Your task to perform on an android device: Add "jbl flip 4" to the cart on bestbuy.com Image 0: 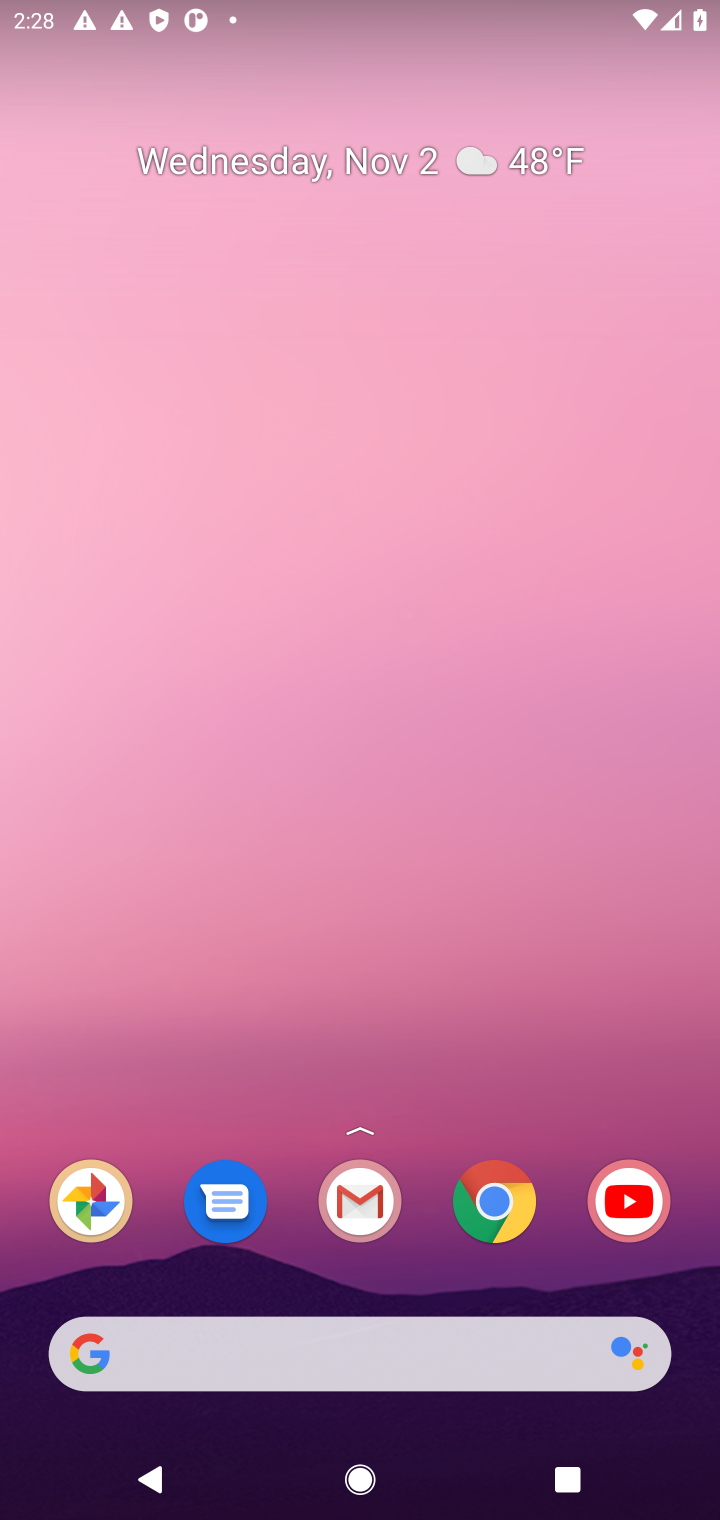
Step 0: click (512, 1214)
Your task to perform on an android device: Add "jbl flip 4" to the cart on bestbuy.com Image 1: 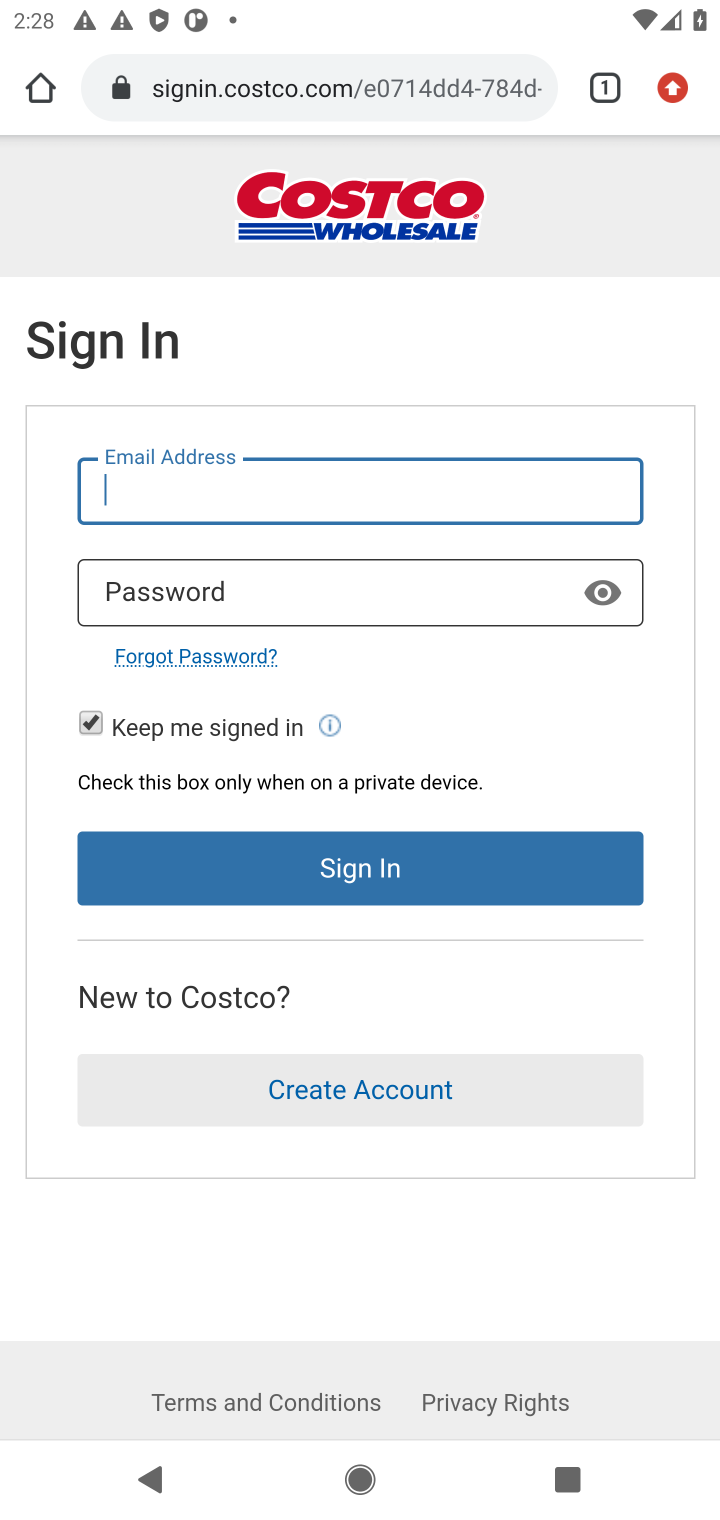
Step 1: click (378, 82)
Your task to perform on an android device: Add "jbl flip 4" to the cart on bestbuy.com Image 2: 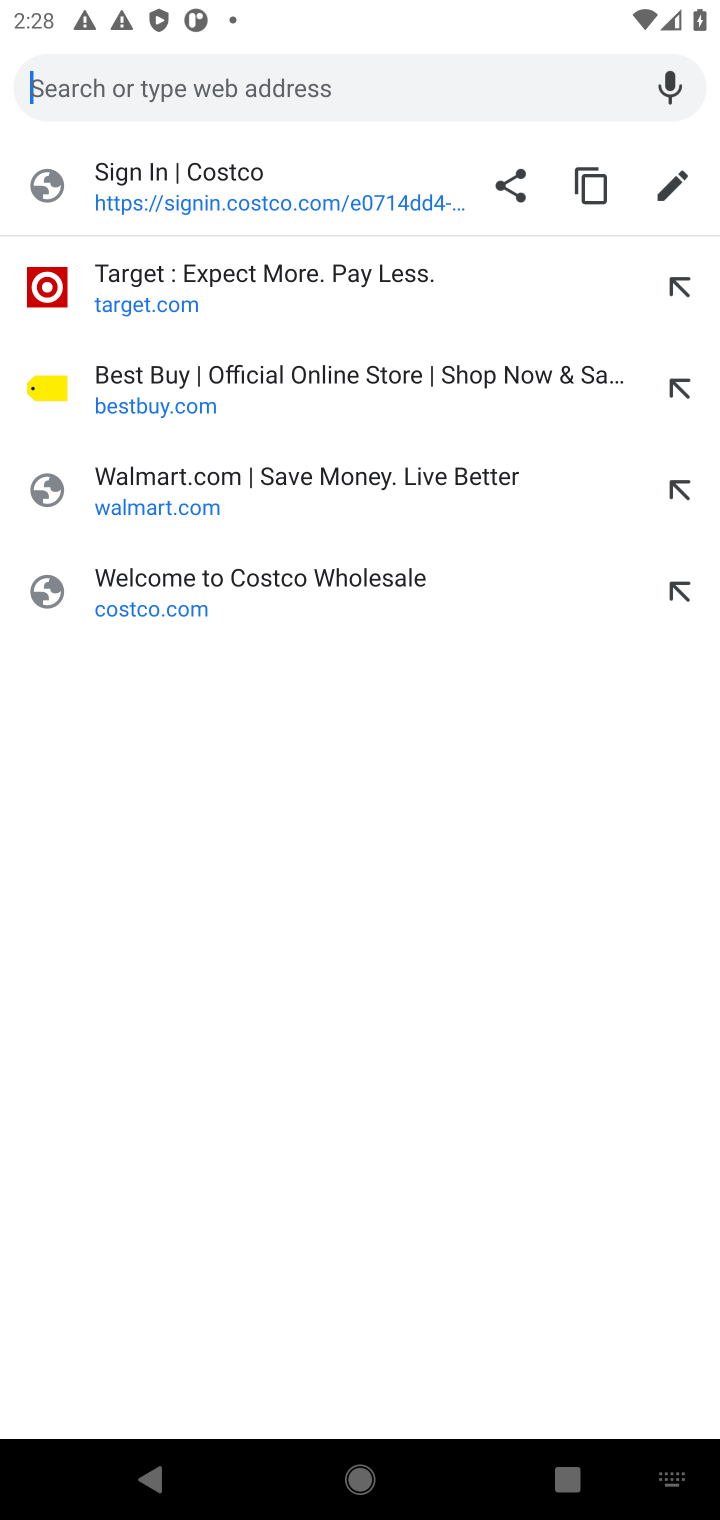
Step 2: click (168, 383)
Your task to perform on an android device: Add "jbl flip 4" to the cart on bestbuy.com Image 3: 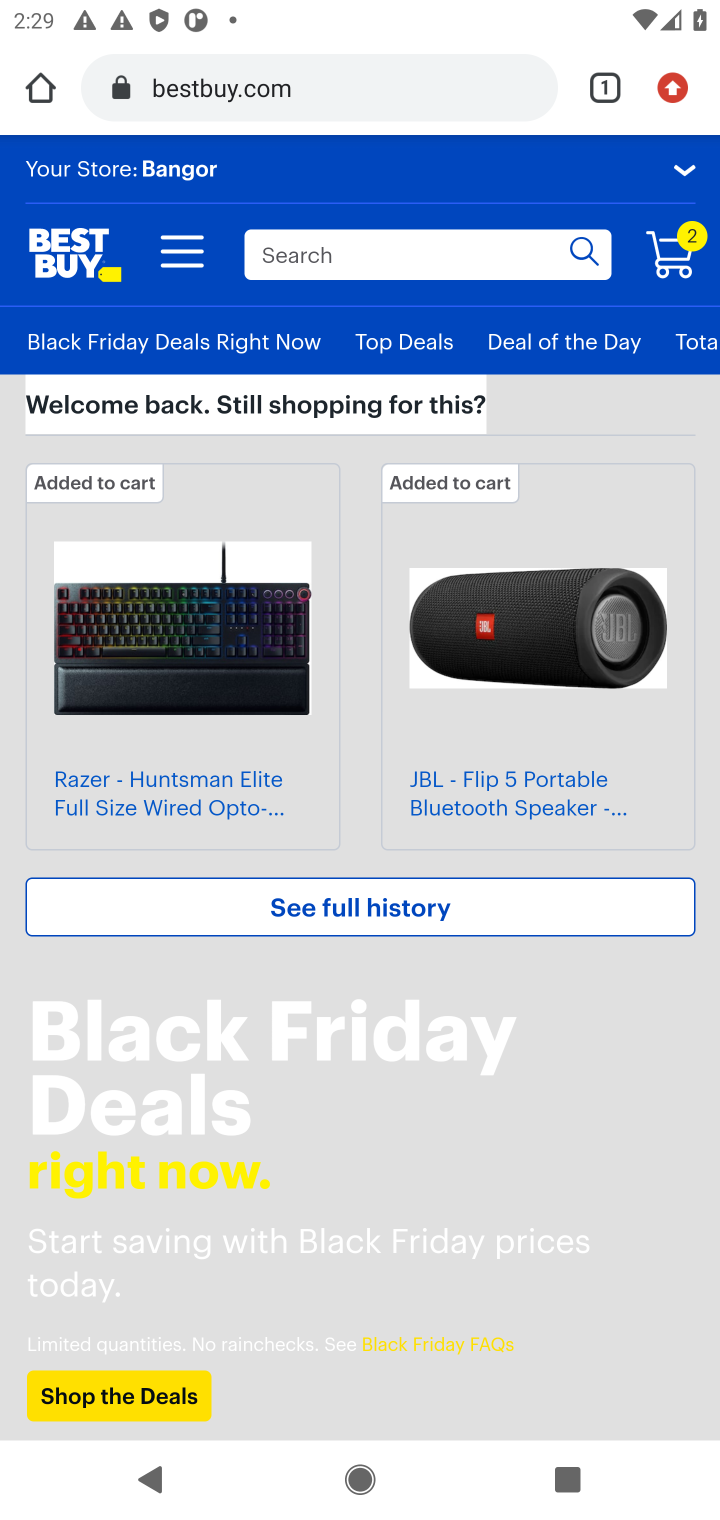
Step 3: click (383, 245)
Your task to perform on an android device: Add "jbl flip 4" to the cart on bestbuy.com Image 4: 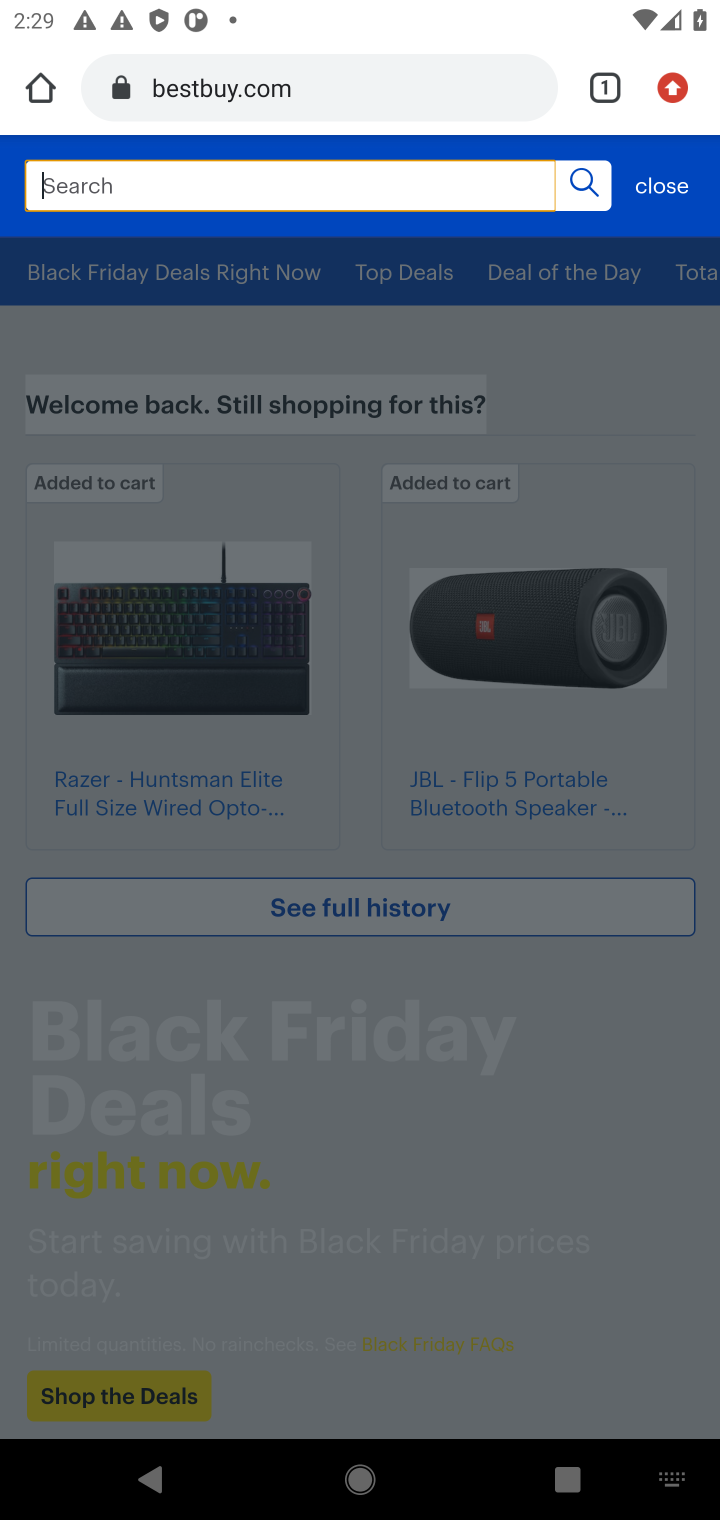
Step 4: press enter
Your task to perform on an android device: Add "jbl flip 4" to the cart on bestbuy.com Image 5: 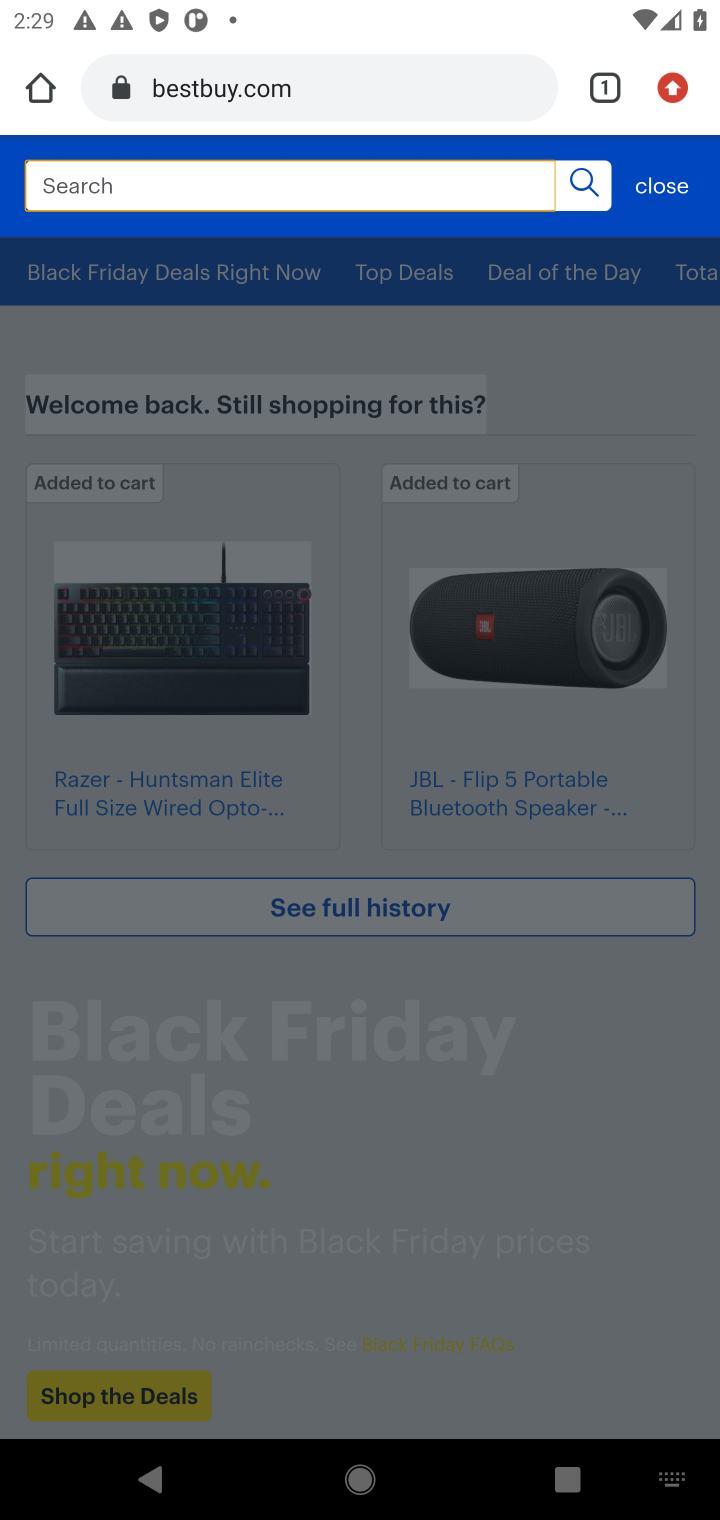
Step 5: type "jbl flip 4"
Your task to perform on an android device: Add "jbl flip 4" to the cart on bestbuy.com Image 6: 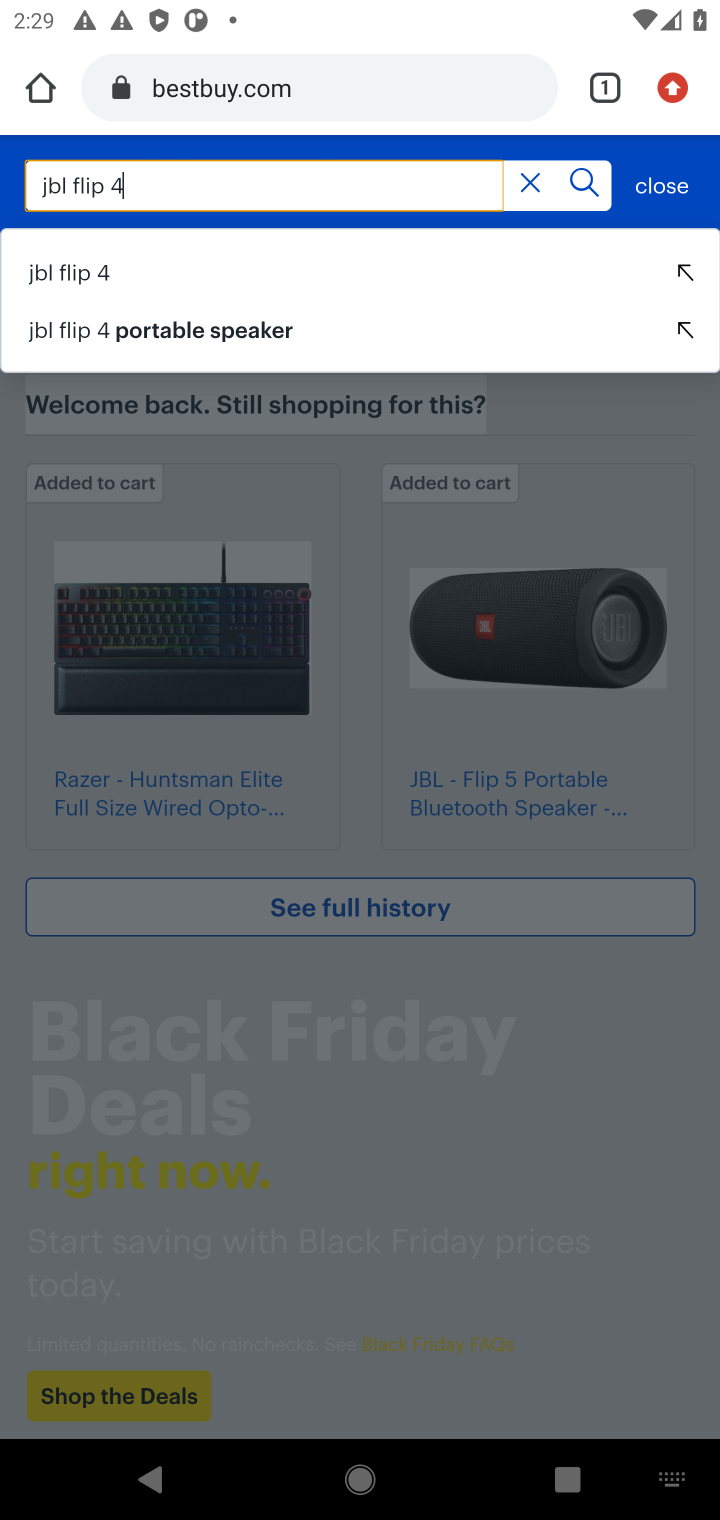
Step 6: click (77, 264)
Your task to perform on an android device: Add "jbl flip 4" to the cart on bestbuy.com Image 7: 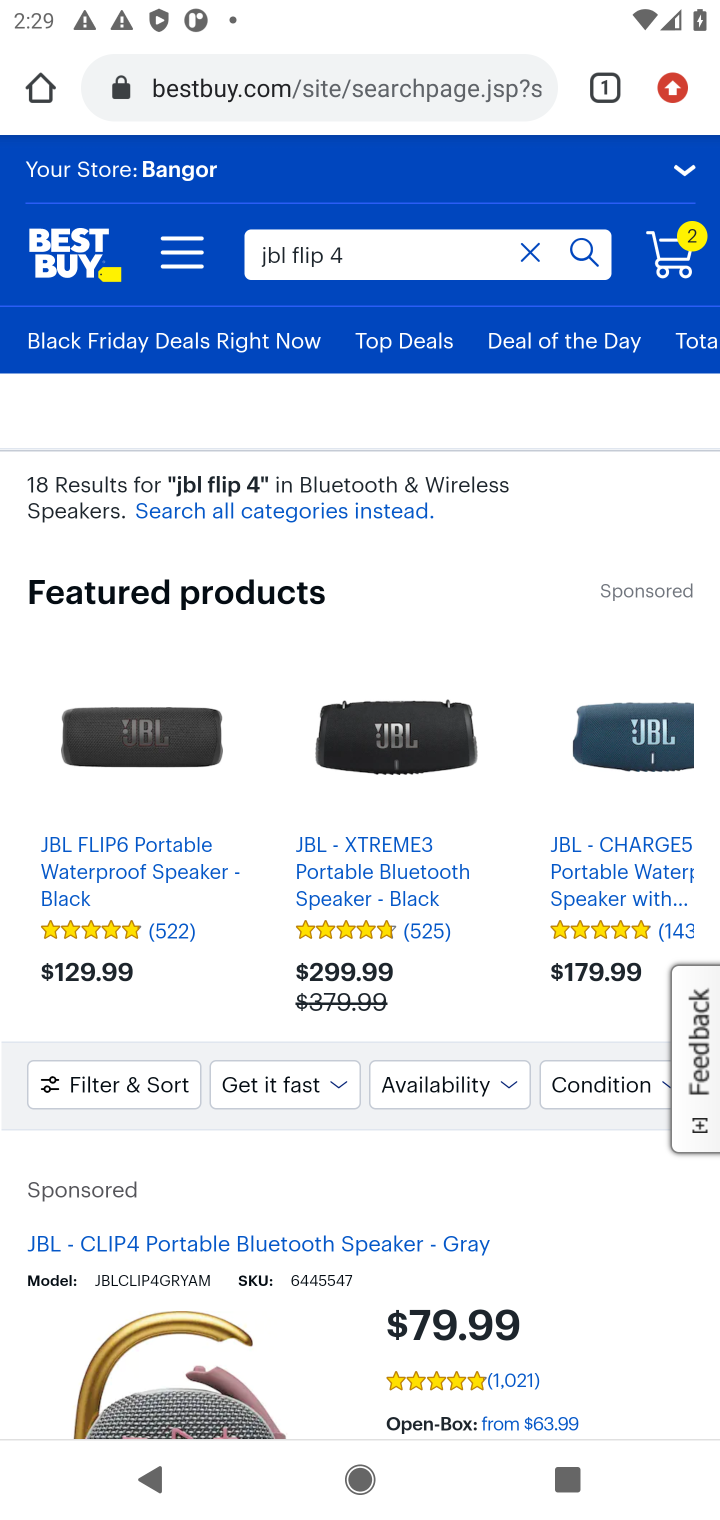
Step 7: drag from (476, 1191) to (351, 683)
Your task to perform on an android device: Add "jbl flip 4" to the cart on bestbuy.com Image 8: 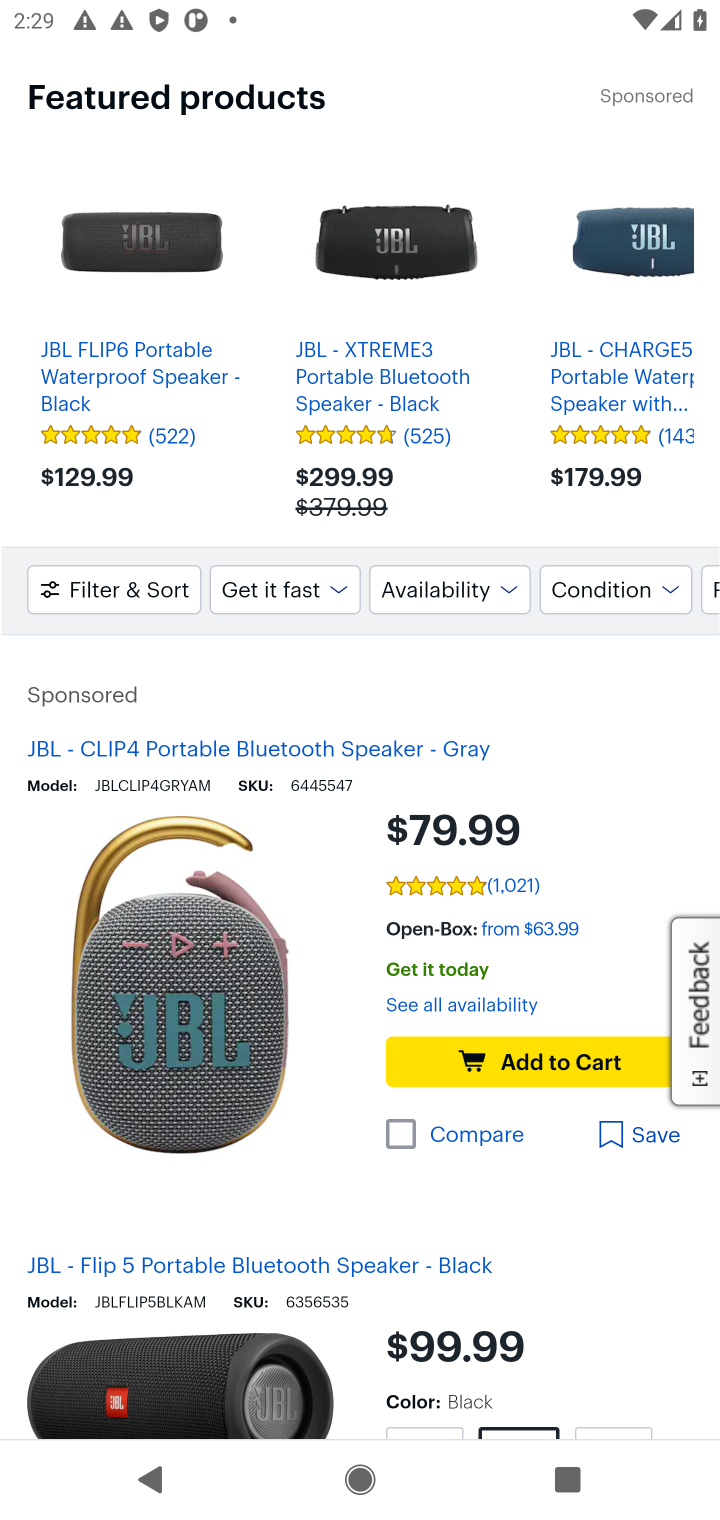
Step 8: click (165, 1346)
Your task to perform on an android device: Add "jbl flip 4" to the cart on bestbuy.com Image 9: 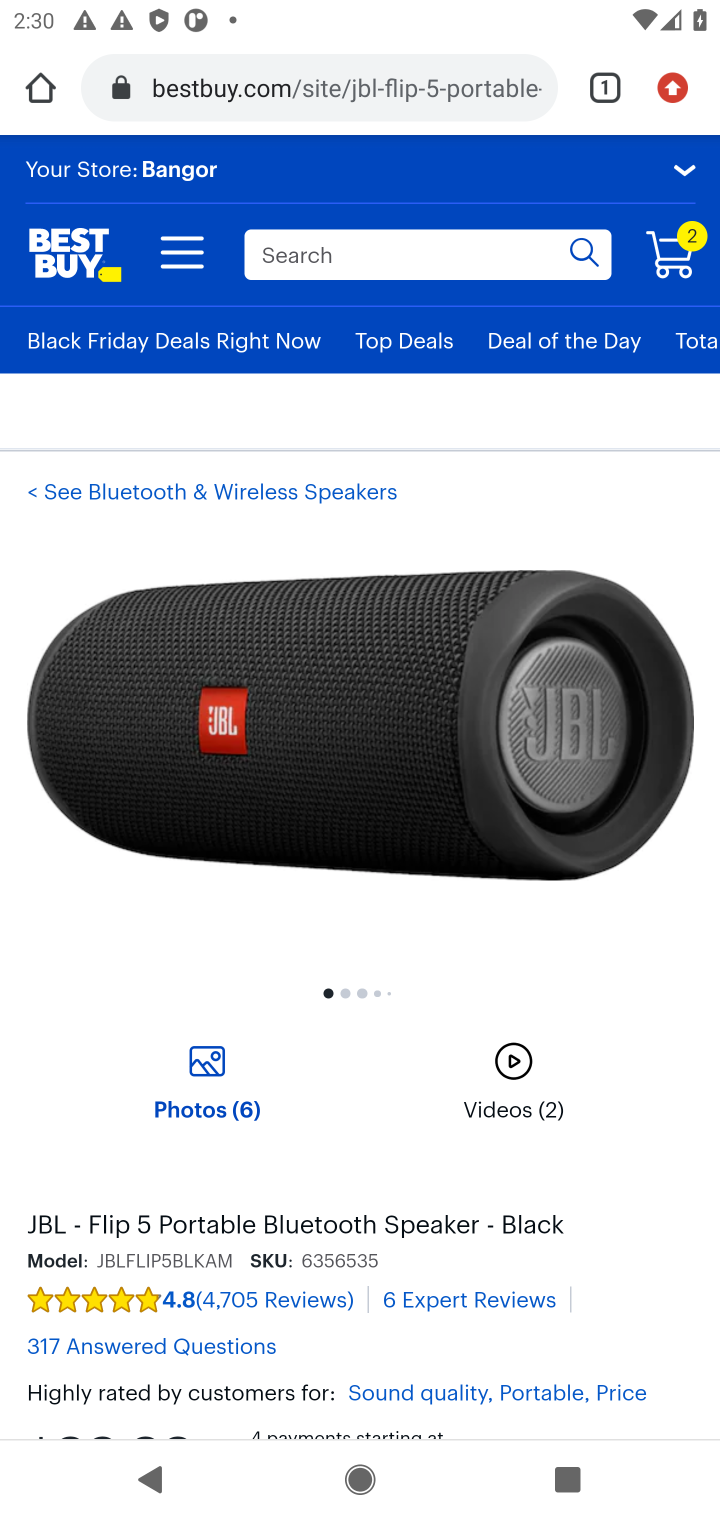
Step 9: drag from (365, 1171) to (237, 380)
Your task to perform on an android device: Add "jbl flip 4" to the cart on bestbuy.com Image 10: 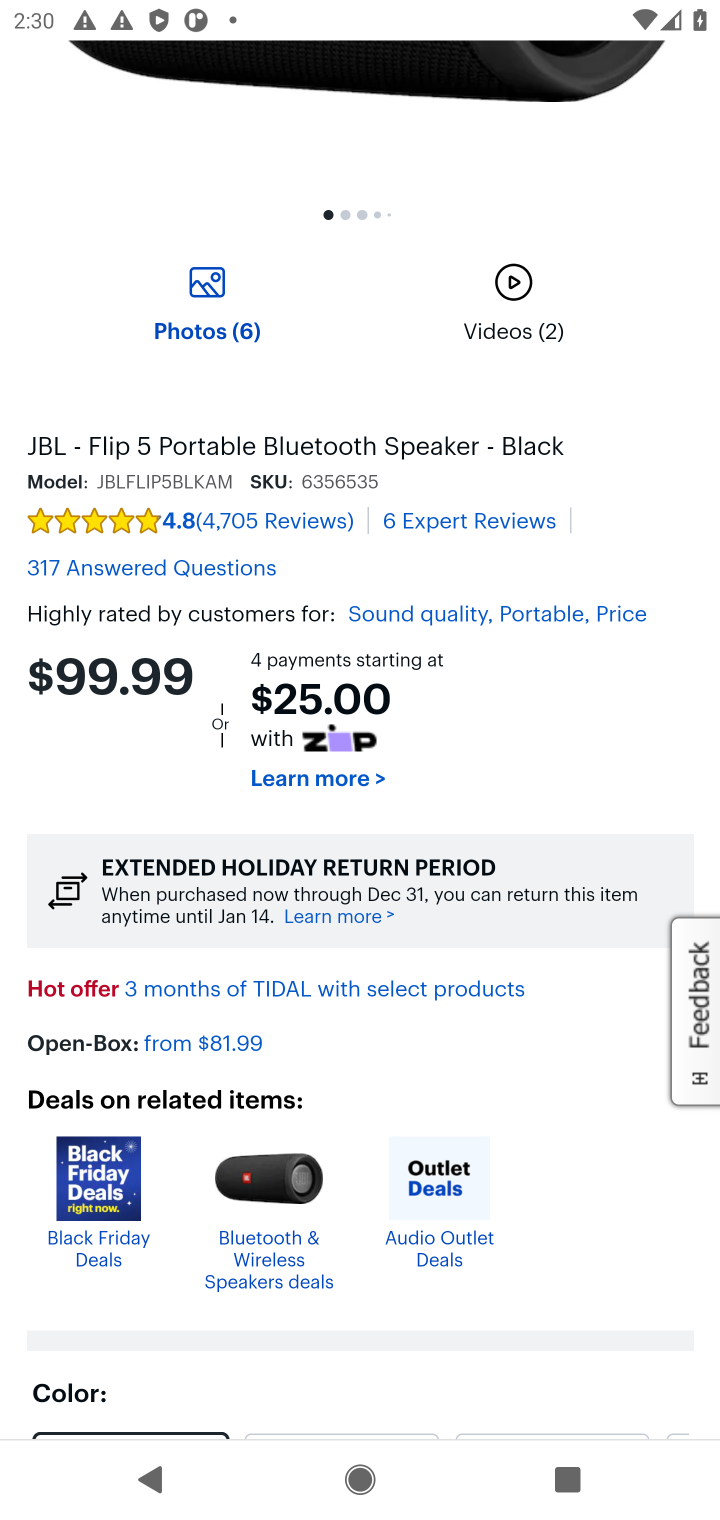
Step 10: drag from (573, 1231) to (448, 672)
Your task to perform on an android device: Add "jbl flip 4" to the cart on bestbuy.com Image 11: 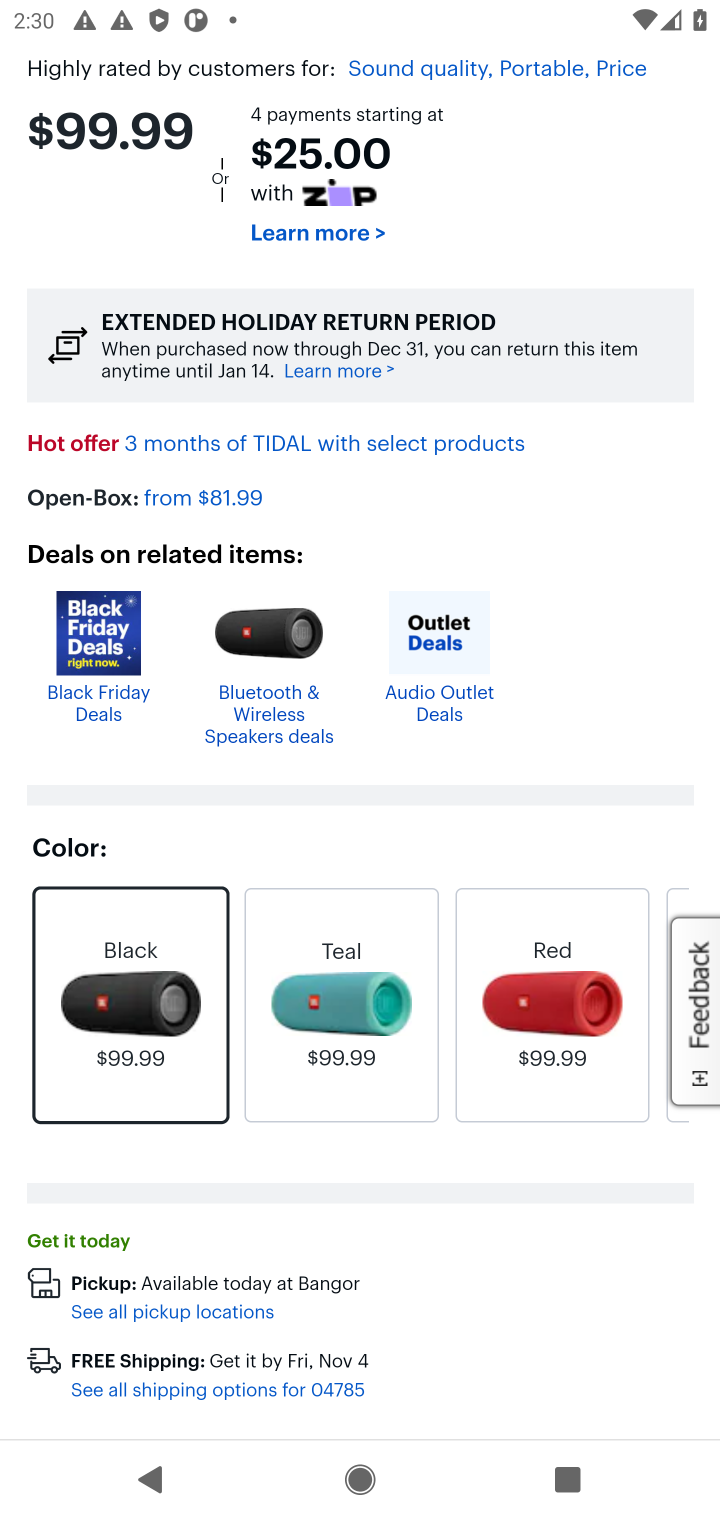
Step 11: drag from (484, 1150) to (428, 606)
Your task to perform on an android device: Add "jbl flip 4" to the cart on bestbuy.com Image 12: 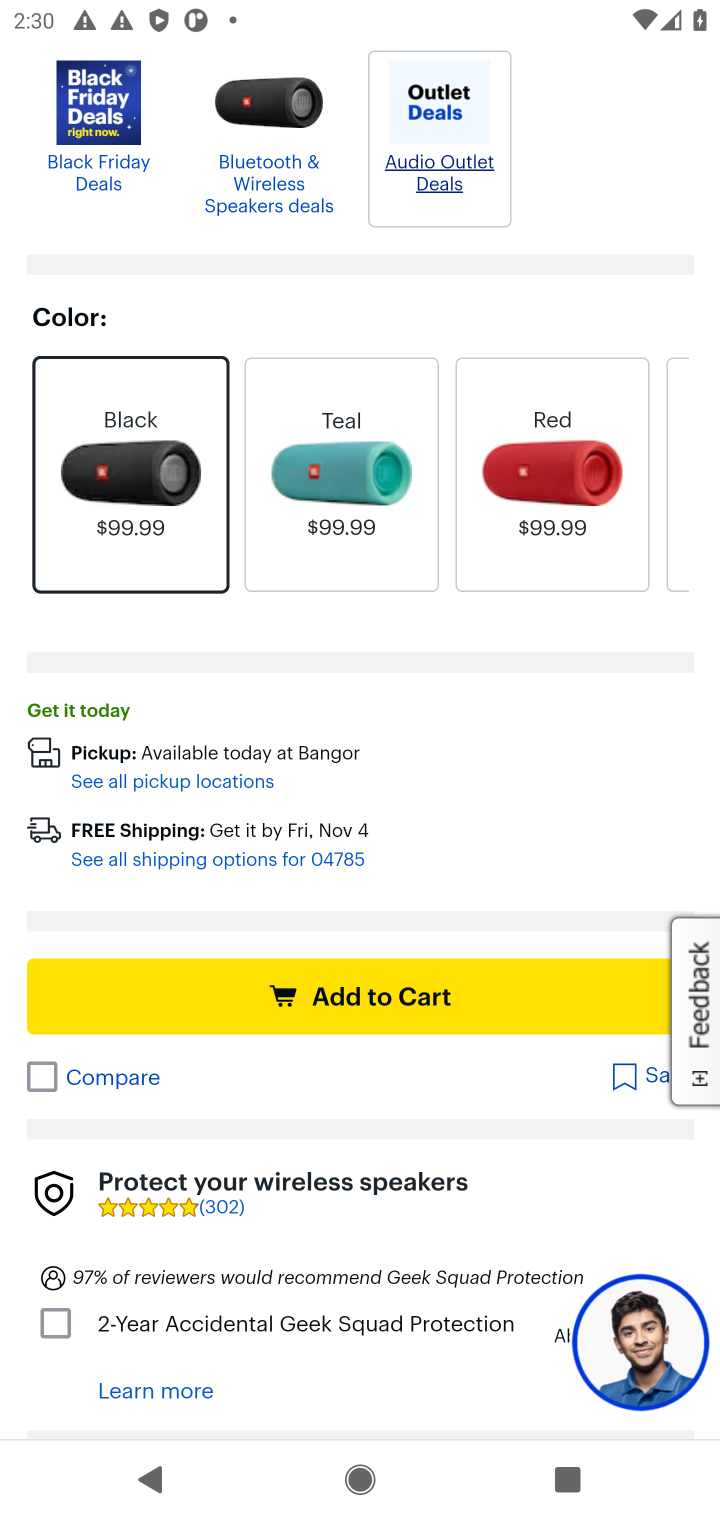
Step 12: click (380, 993)
Your task to perform on an android device: Add "jbl flip 4" to the cart on bestbuy.com Image 13: 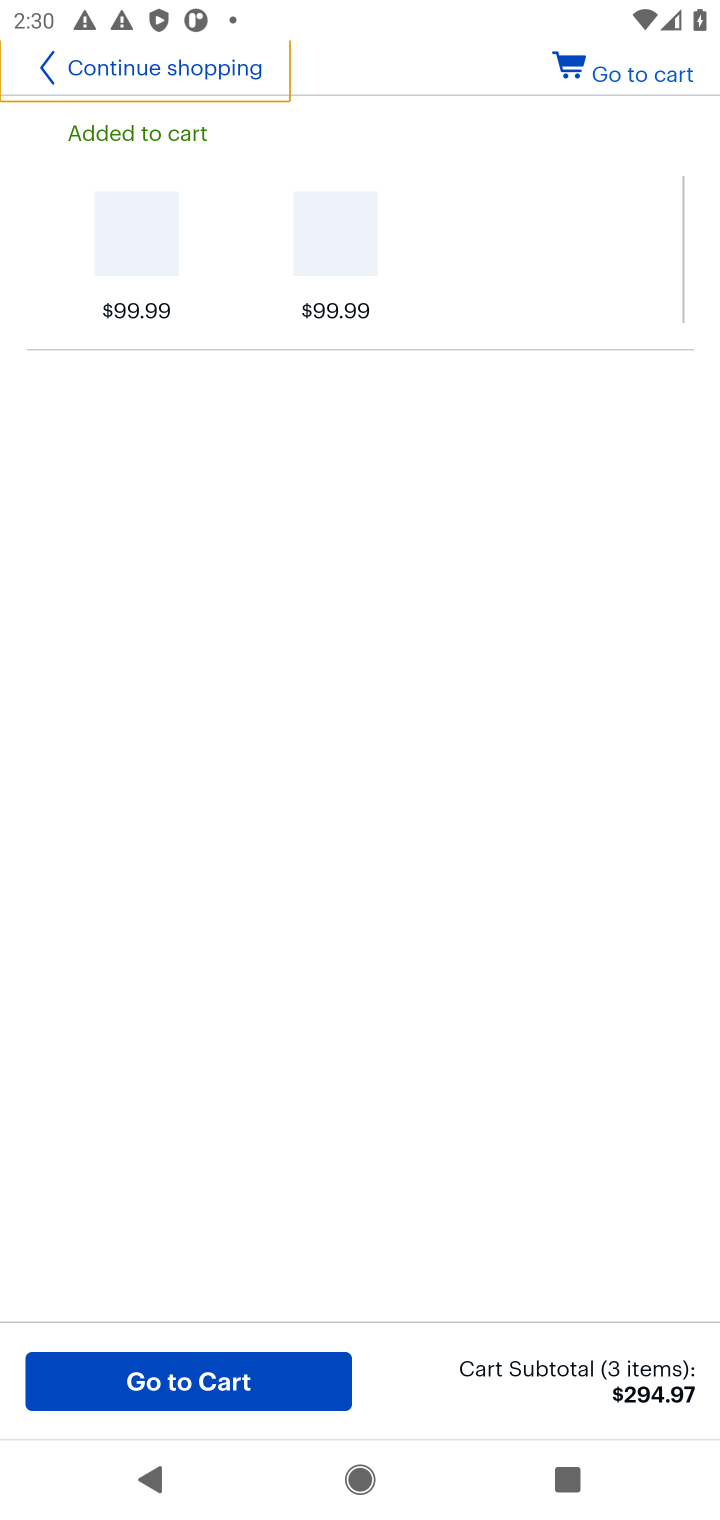
Step 13: task complete